Your task to perform on an android device: Set the phone to "Do not disturb". Image 0: 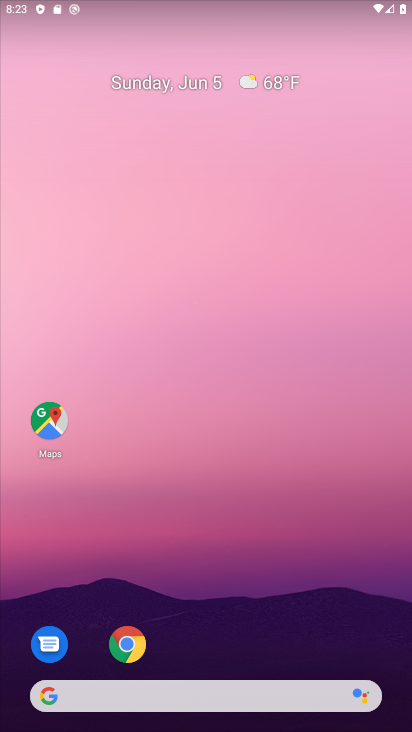
Step 0: task complete